Your task to perform on an android device: Is it going to rain today? Image 0: 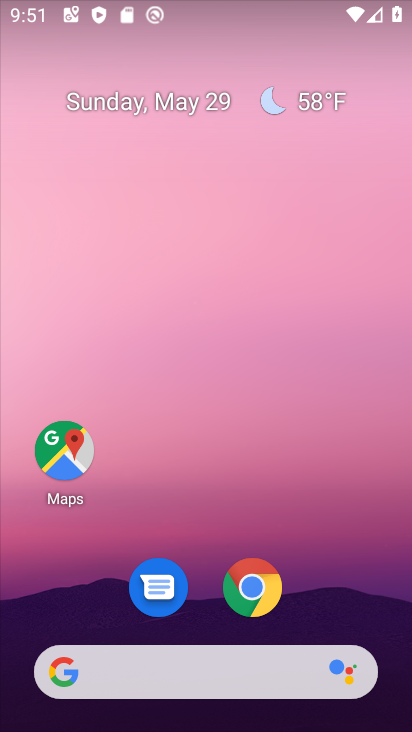
Step 0: drag from (341, 604) to (212, 124)
Your task to perform on an android device: Is it going to rain today? Image 1: 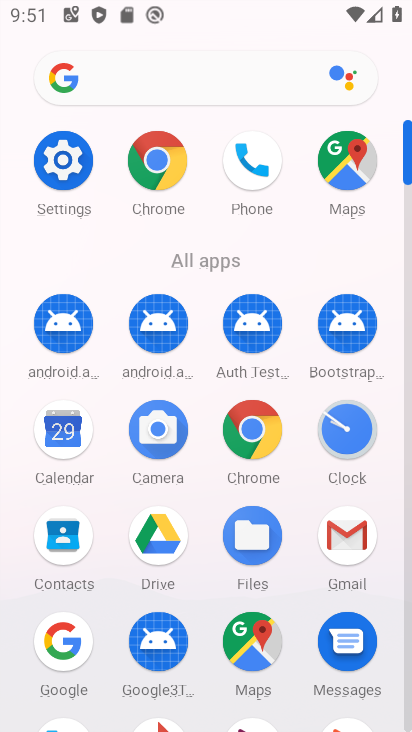
Step 1: click (164, 168)
Your task to perform on an android device: Is it going to rain today? Image 2: 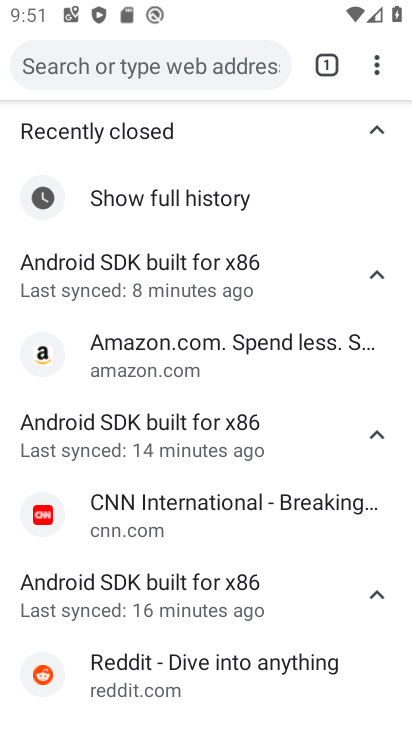
Step 2: click (114, 63)
Your task to perform on an android device: Is it going to rain today? Image 3: 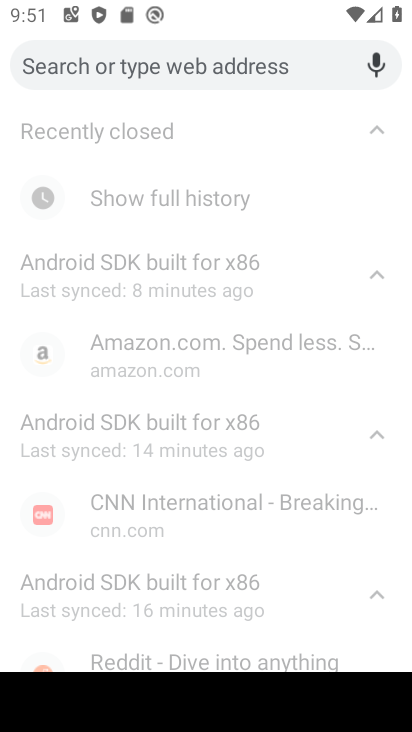
Step 3: type "Is it going to rain today?"
Your task to perform on an android device: Is it going to rain today? Image 4: 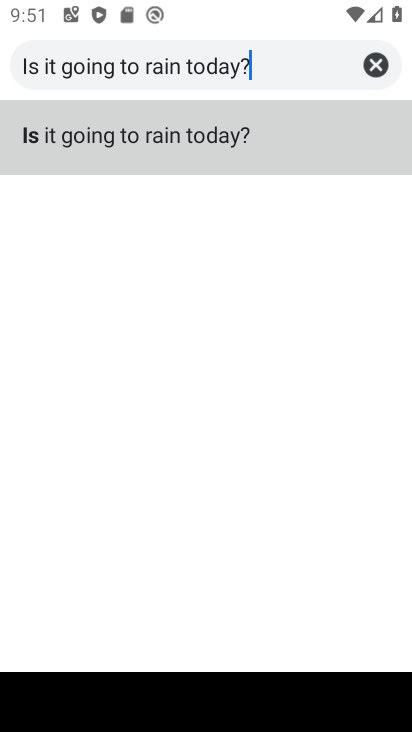
Step 4: click (133, 135)
Your task to perform on an android device: Is it going to rain today? Image 5: 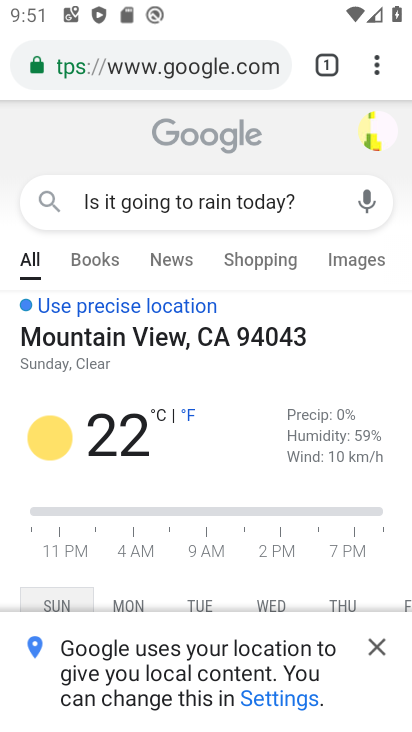
Step 5: click (380, 644)
Your task to perform on an android device: Is it going to rain today? Image 6: 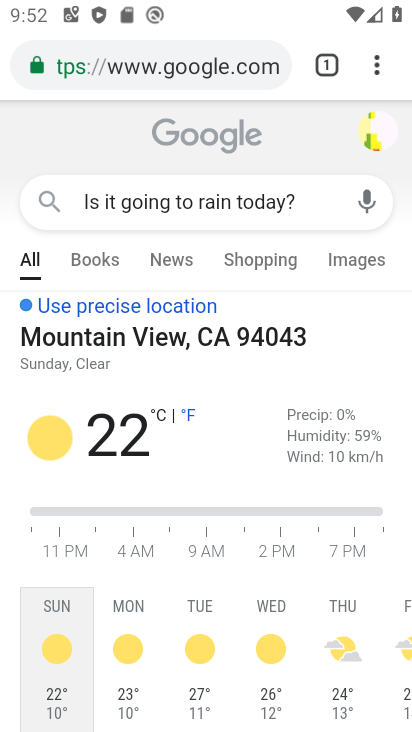
Step 6: click (132, 656)
Your task to perform on an android device: Is it going to rain today? Image 7: 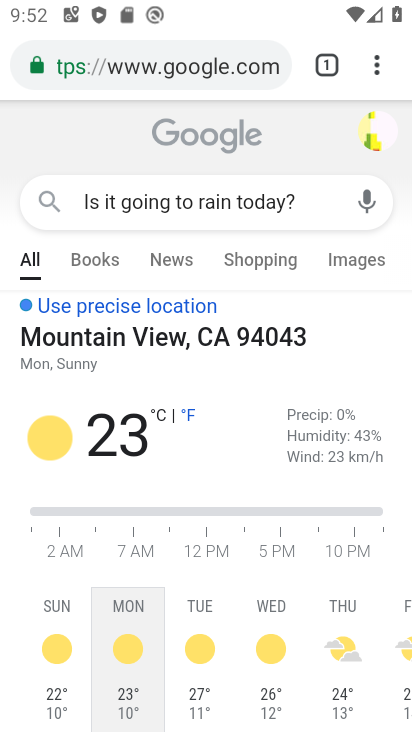
Step 7: task complete